Your task to perform on an android device: toggle data saver in the chrome app Image 0: 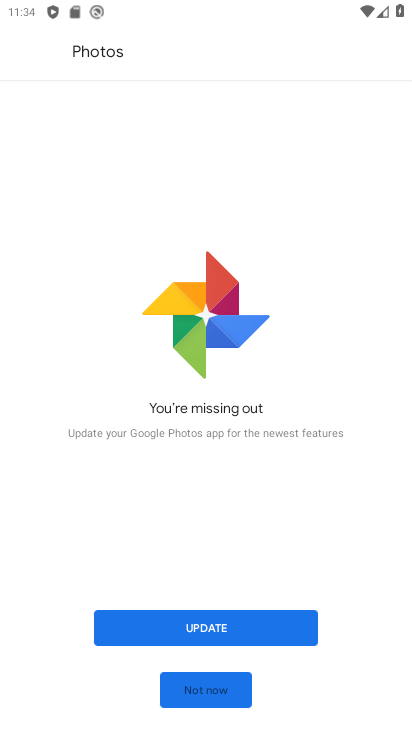
Step 0: press home button
Your task to perform on an android device: toggle data saver in the chrome app Image 1: 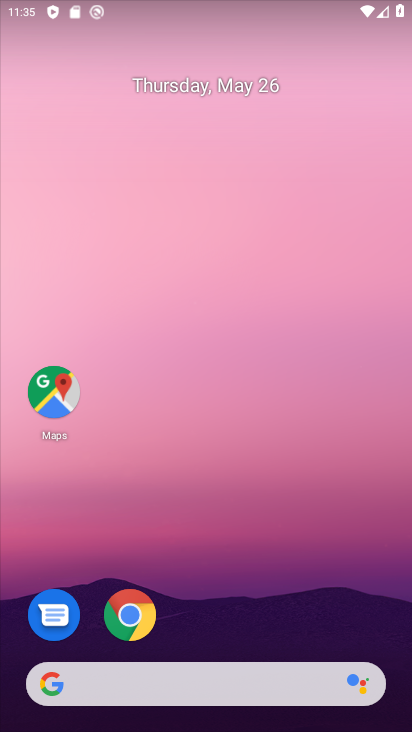
Step 1: drag from (250, 621) to (173, 66)
Your task to perform on an android device: toggle data saver in the chrome app Image 2: 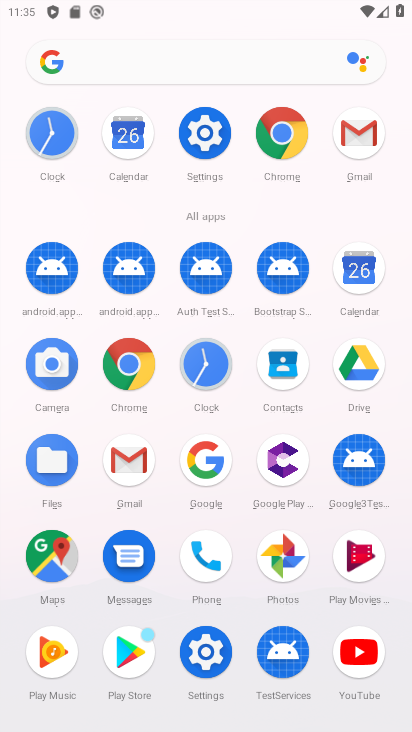
Step 2: click (288, 126)
Your task to perform on an android device: toggle data saver in the chrome app Image 3: 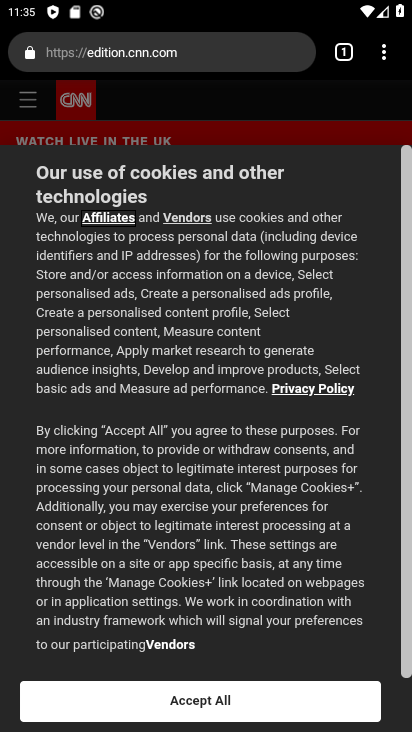
Step 3: click (395, 59)
Your task to perform on an android device: toggle data saver in the chrome app Image 4: 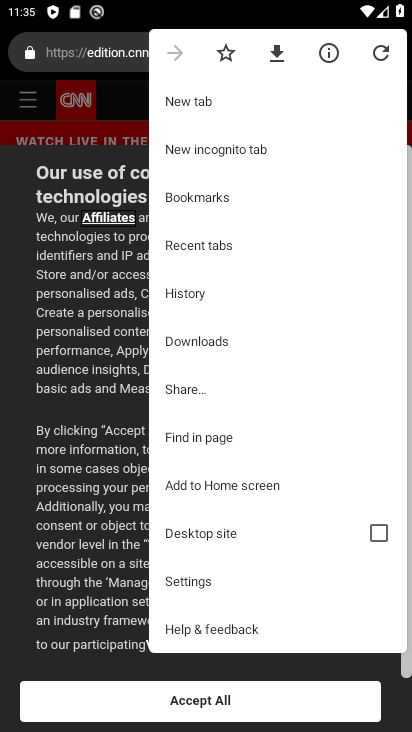
Step 4: click (229, 579)
Your task to perform on an android device: toggle data saver in the chrome app Image 5: 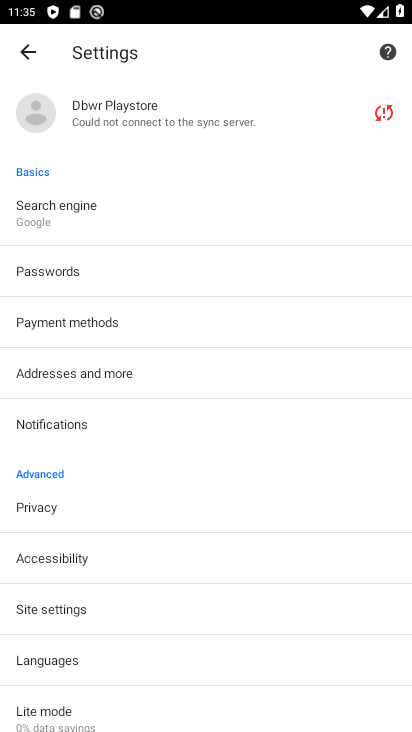
Step 5: drag from (157, 693) to (99, 372)
Your task to perform on an android device: toggle data saver in the chrome app Image 6: 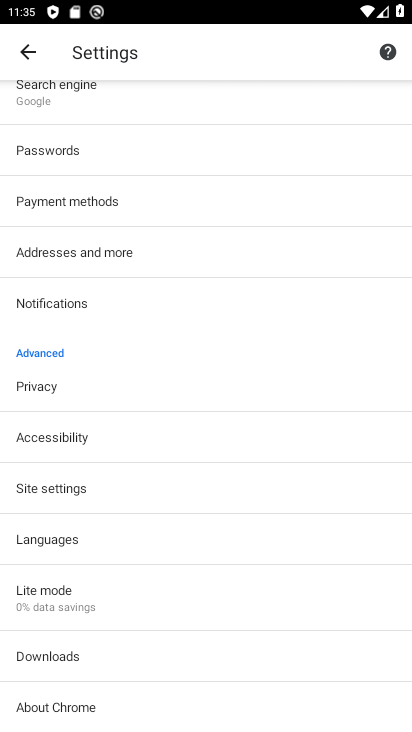
Step 6: click (122, 600)
Your task to perform on an android device: toggle data saver in the chrome app Image 7: 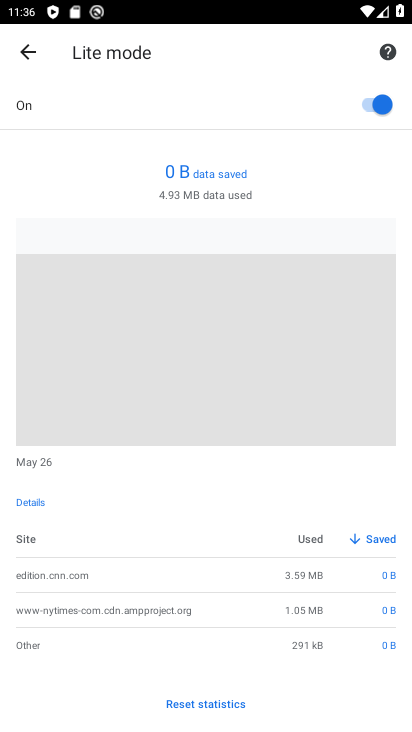
Step 7: click (381, 105)
Your task to perform on an android device: toggle data saver in the chrome app Image 8: 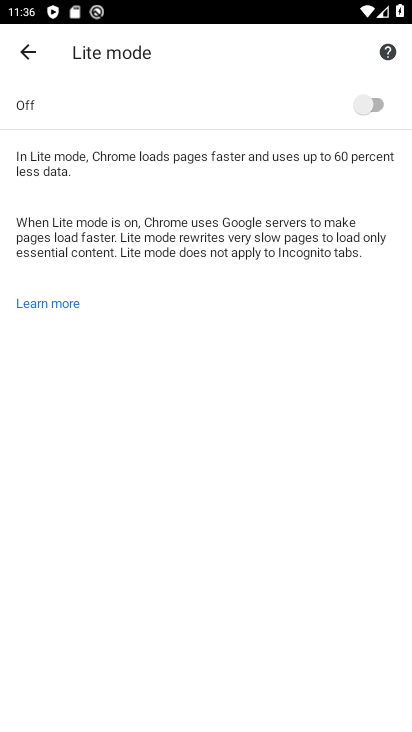
Step 8: task complete